Your task to perform on an android device: open app "McDonald's" (install if not already installed), go to login, and select forgot password Image 0: 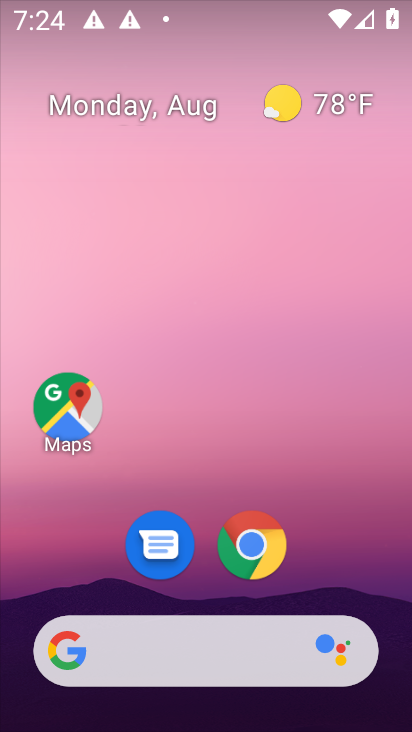
Step 0: drag from (350, 571) to (363, 59)
Your task to perform on an android device: open app "McDonald's" (install if not already installed), go to login, and select forgot password Image 1: 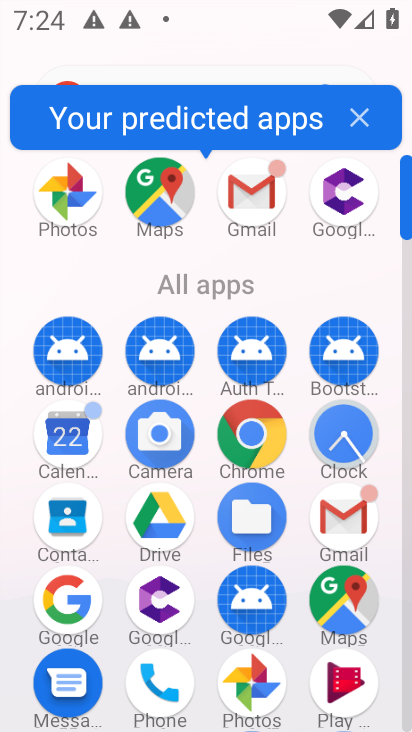
Step 1: drag from (387, 642) to (394, 365)
Your task to perform on an android device: open app "McDonald's" (install if not already installed), go to login, and select forgot password Image 2: 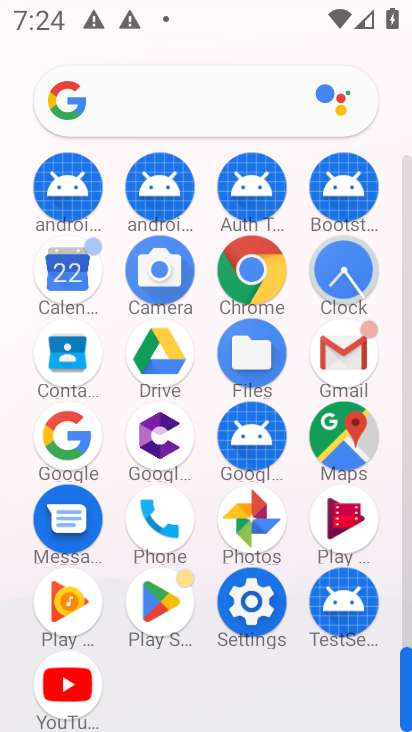
Step 2: click (160, 608)
Your task to perform on an android device: open app "McDonald's" (install if not already installed), go to login, and select forgot password Image 3: 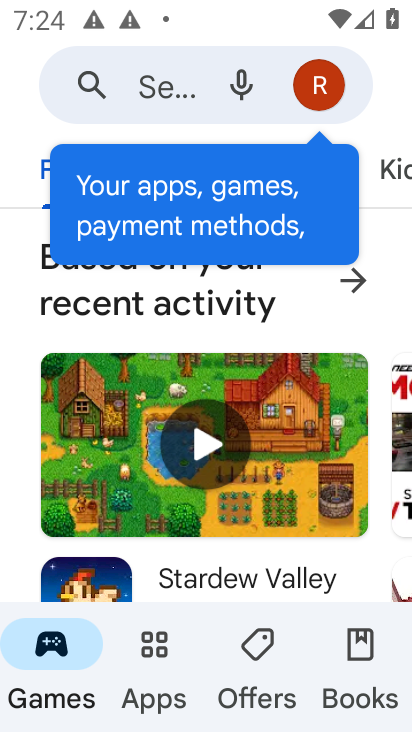
Step 3: click (171, 92)
Your task to perform on an android device: open app "McDonald's" (install if not already installed), go to login, and select forgot password Image 4: 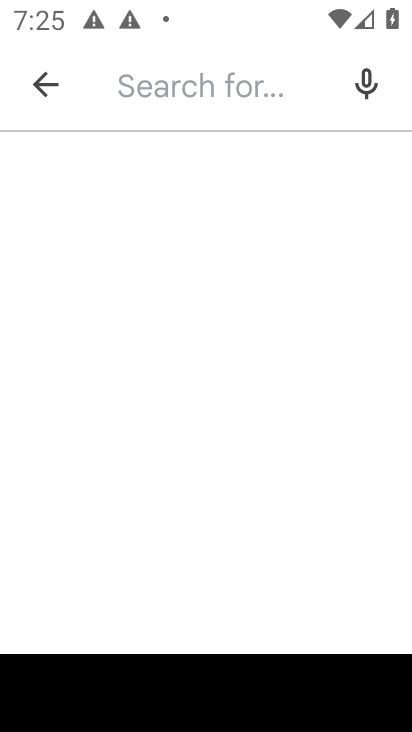
Step 4: type "McDonald's"
Your task to perform on an android device: open app "McDonald's" (install if not already installed), go to login, and select forgot password Image 5: 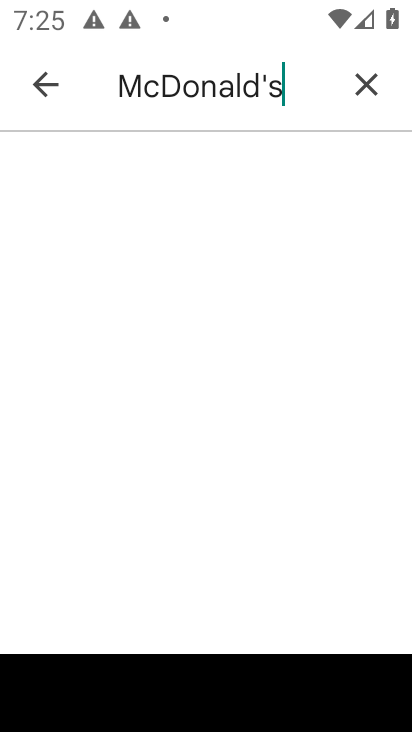
Step 5: press enter
Your task to perform on an android device: open app "McDonald's" (install if not already installed), go to login, and select forgot password Image 6: 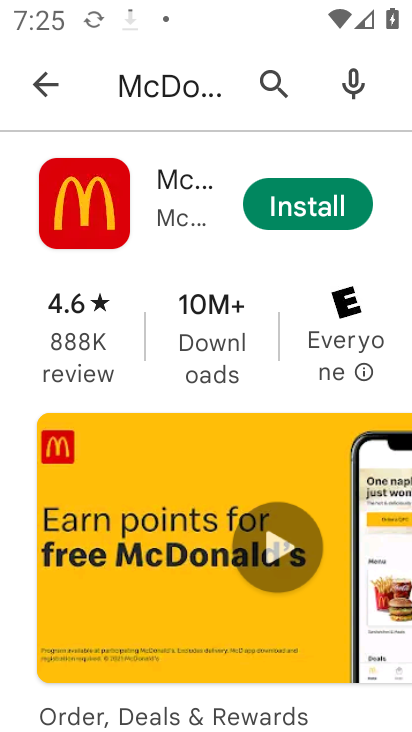
Step 6: click (311, 202)
Your task to perform on an android device: open app "McDonald's" (install if not already installed), go to login, and select forgot password Image 7: 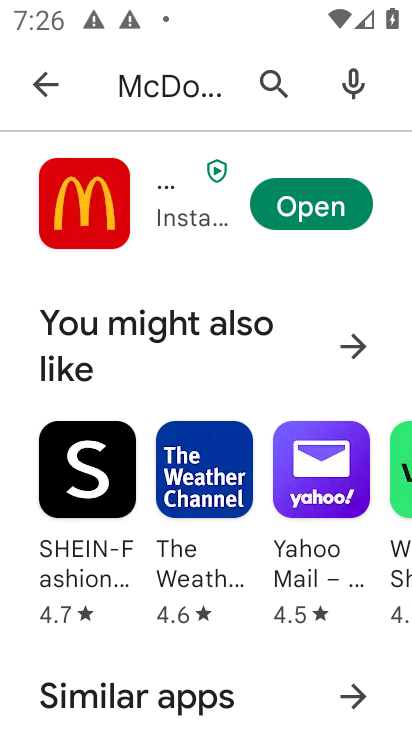
Step 7: click (319, 212)
Your task to perform on an android device: open app "McDonald's" (install if not already installed), go to login, and select forgot password Image 8: 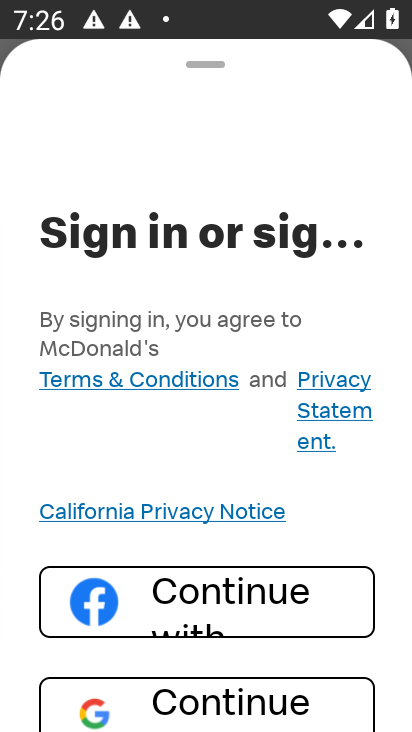
Step 8: drag from (358, 508) to (356, 155)
Your task to perform on an android device: open app "McDonald's" (install if not already installed), go to login, and select forgot password Image 9: 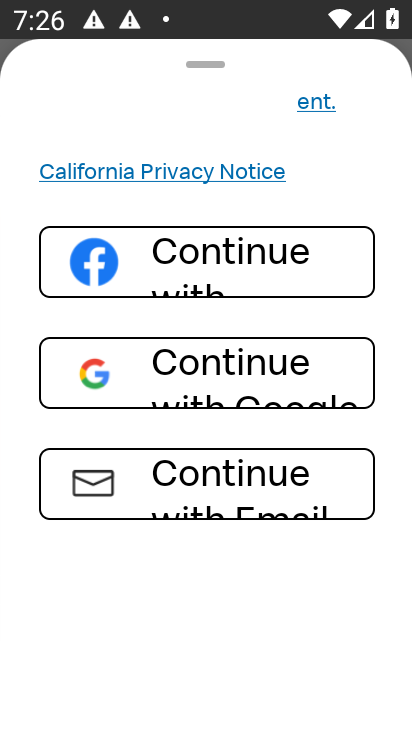
Step 9: drag from (388, 151) to (379, 372)
Your task to perform on an android device: open app "McDonald's" (install if not already installed), go to login, and select forgot password Image 10: 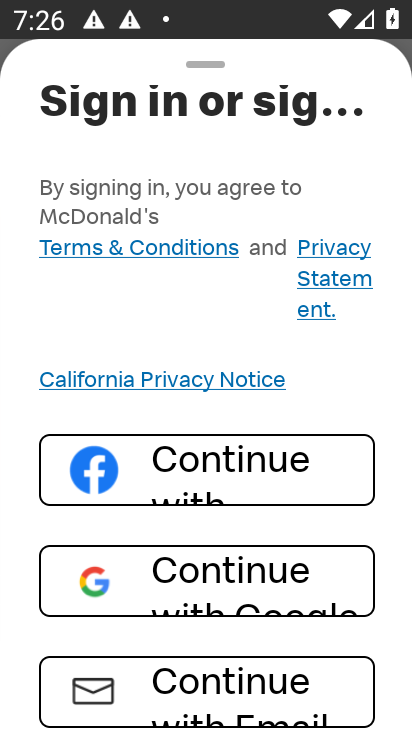
Step 10: drag from (388, 520) to (373, 305)
Your task to perform on an android device: open app "McDonald's" (install if not already installed), go to login, and select forgot password Image 11: 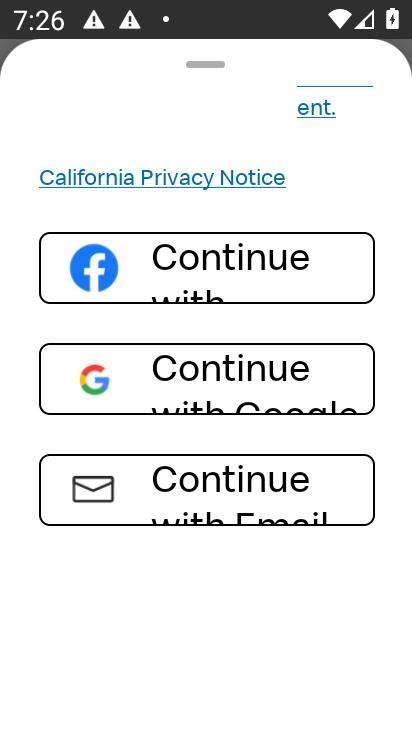
Step 11: click (220, 490)
Your task to perform on an android device: open app "McDonald's" (install if not already installed), go to login, and select forgot password Image 12: 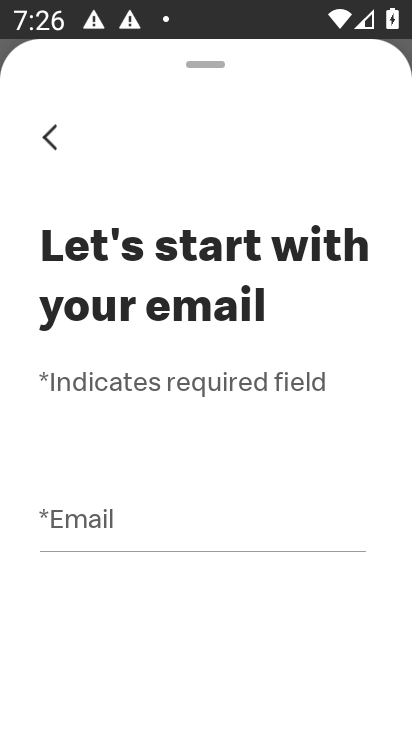
Step 12: task complete